Your task to perform on an android device: Go to network settings Image 0: 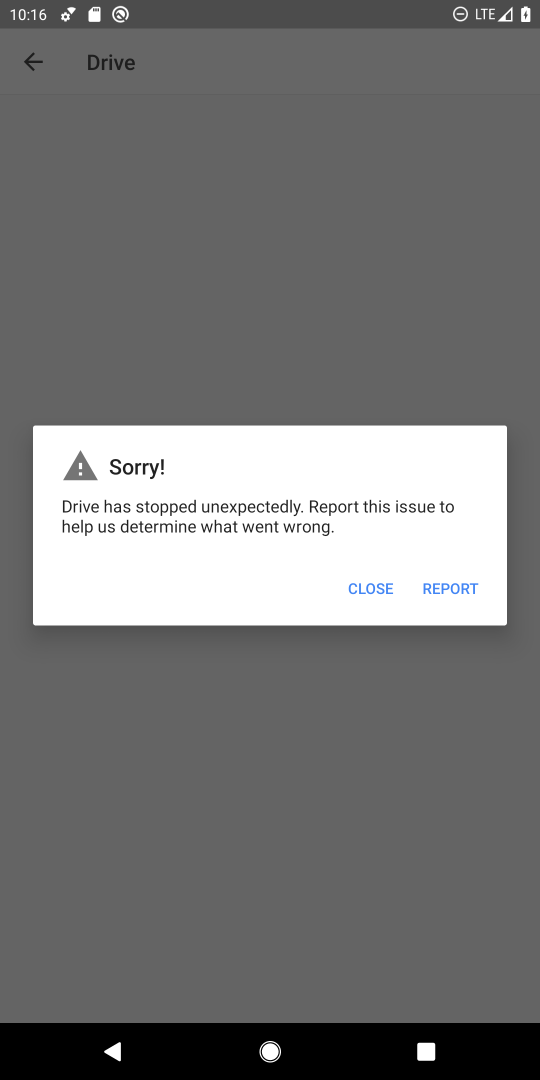
Step 0: press home button
Your task to perform on an android device: Go to network settings Image 1: 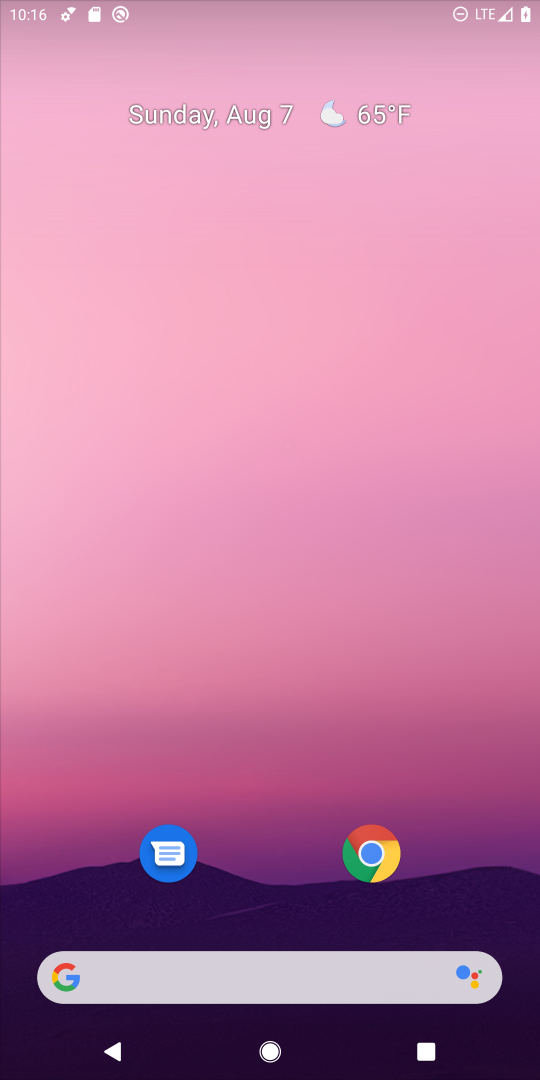
Step 1: drag from (209, 847) to (270, 281)
Your task to perform on an android device: Go to network settings Image 2: 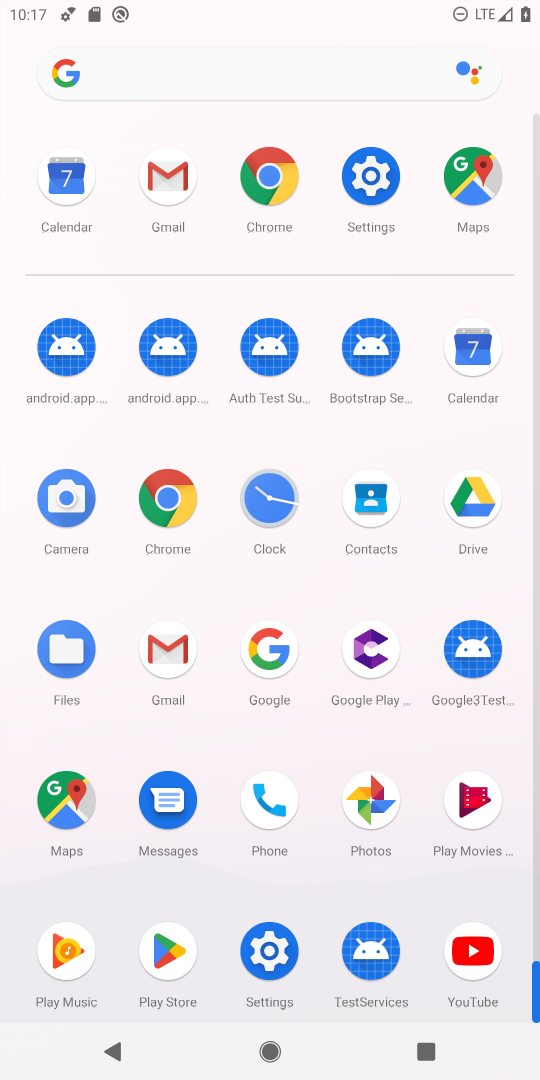
Step 2: click (389, 162)
Your task to perform on an android device: Go to network settings Image 3: 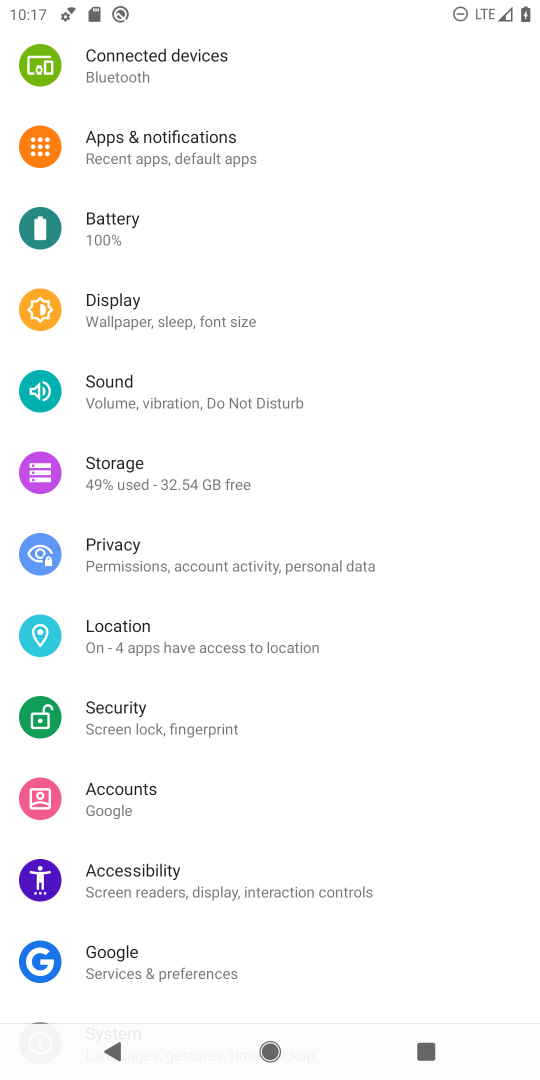
Step 3: drag from (161, 81) to (151, 740)
Your task to perform on an android device: Go to network settings Image 4: 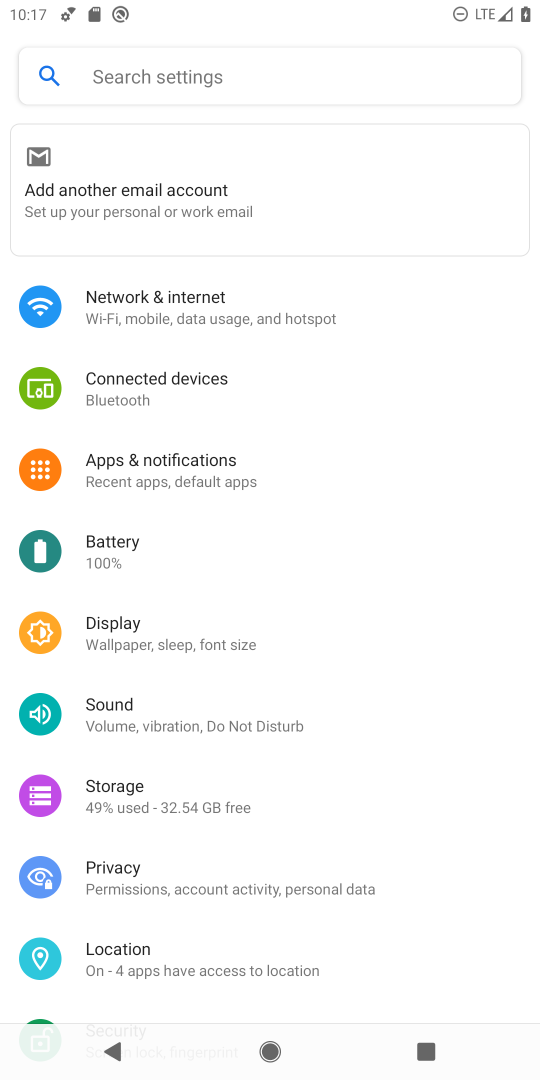
Step 4: click (190, 307)
Your task to perform on an android device: Go to network settings Image 5: 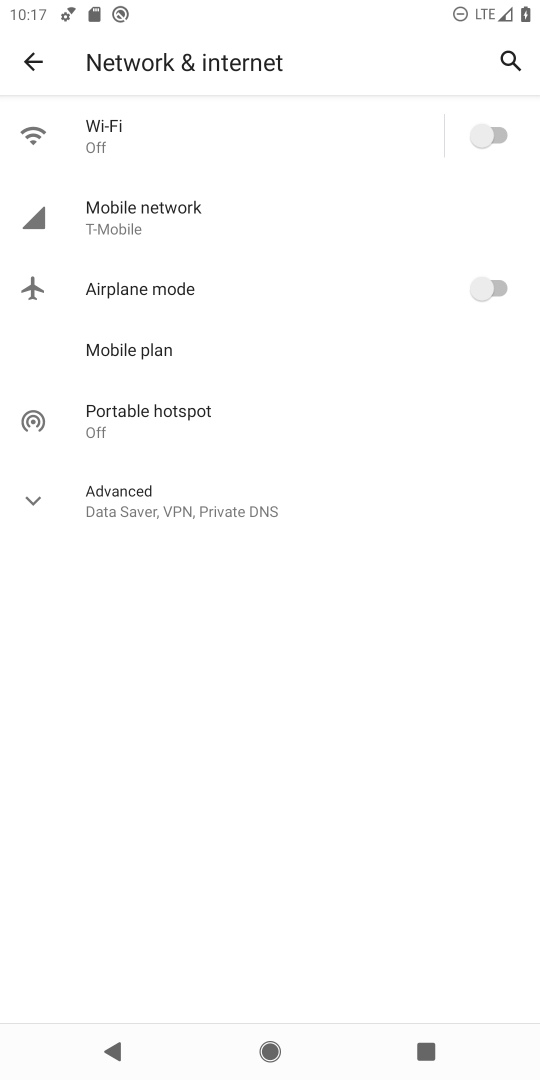
Step 5: task complete